Your task to perform on an android device: Look up the best rated video games on bestbuy.com Image 0: 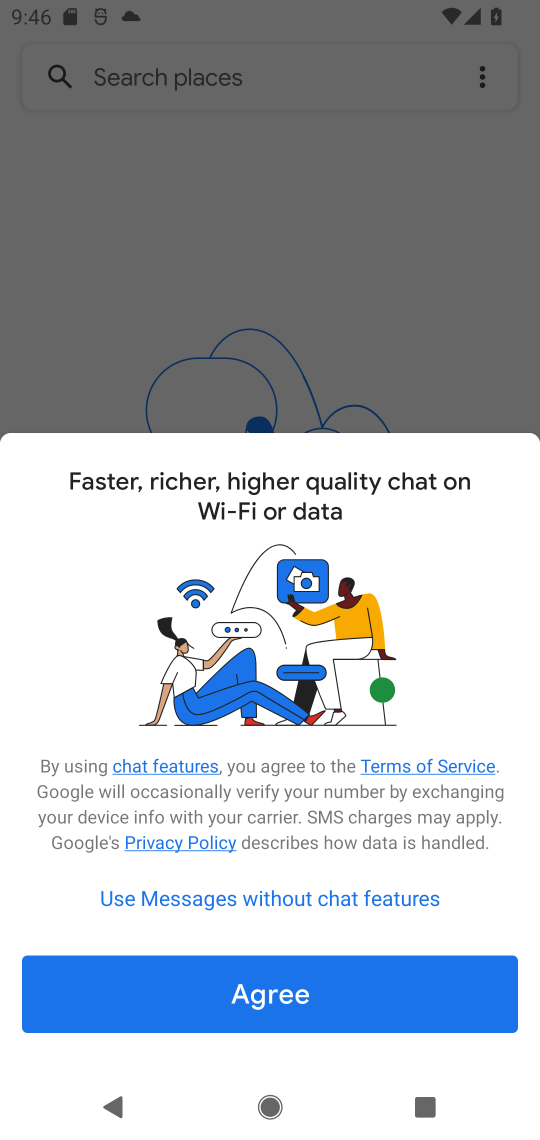
Step 0: press home button
Your task to perform on an android device: Look up the best rated video games on bestbuy.com Image 1: 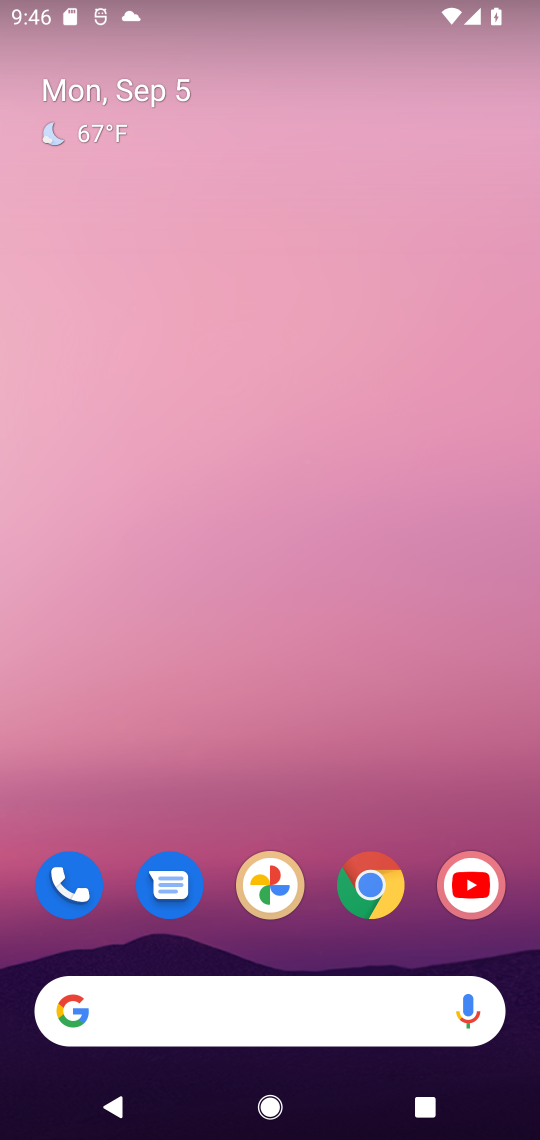
Step 1: drag from (307, 948) to (282, 61)
Your task to perform on an android device: Look up the best rated video games on bestbuy.com Image 2: 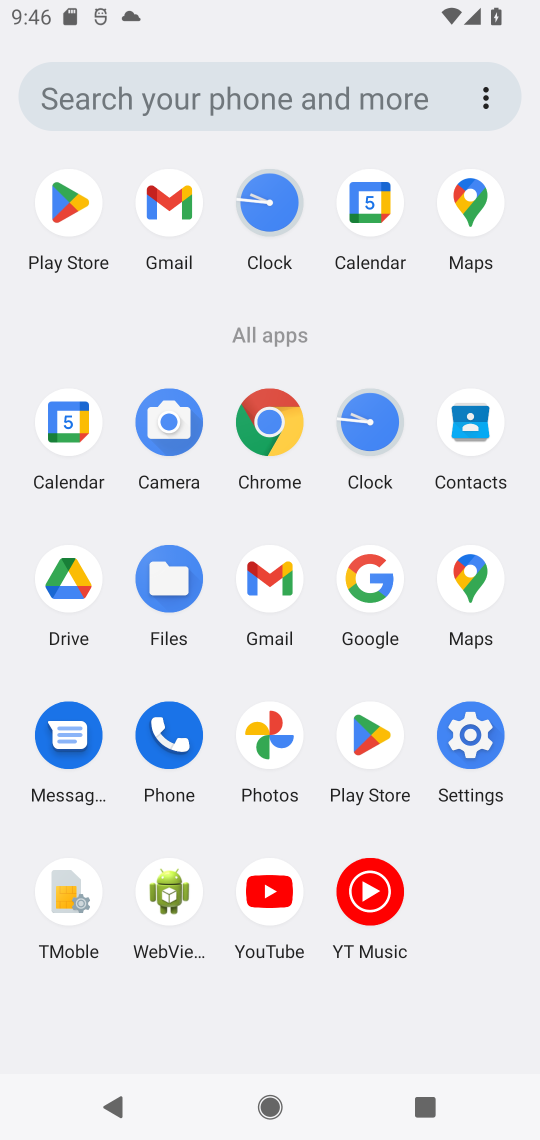
Step 2: click (375, 587)
Your task to perform on an android device: Look up the best rated video games on bestbuy.com Image 3: 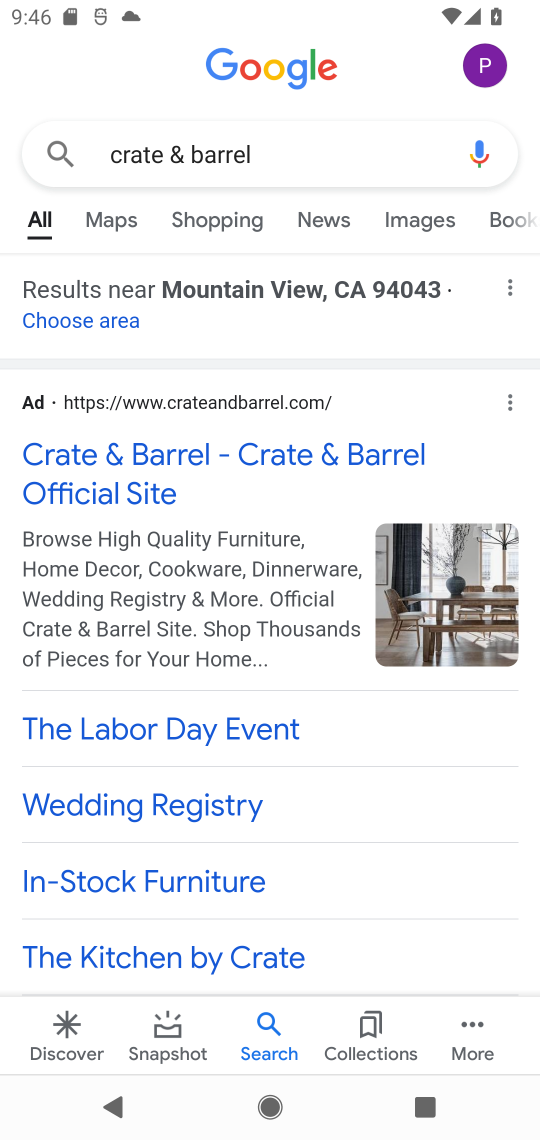
Step 3: click (271, 165)
Your task to perform on an android device: Look up the best rated video games on bestbuy.com Image 4: 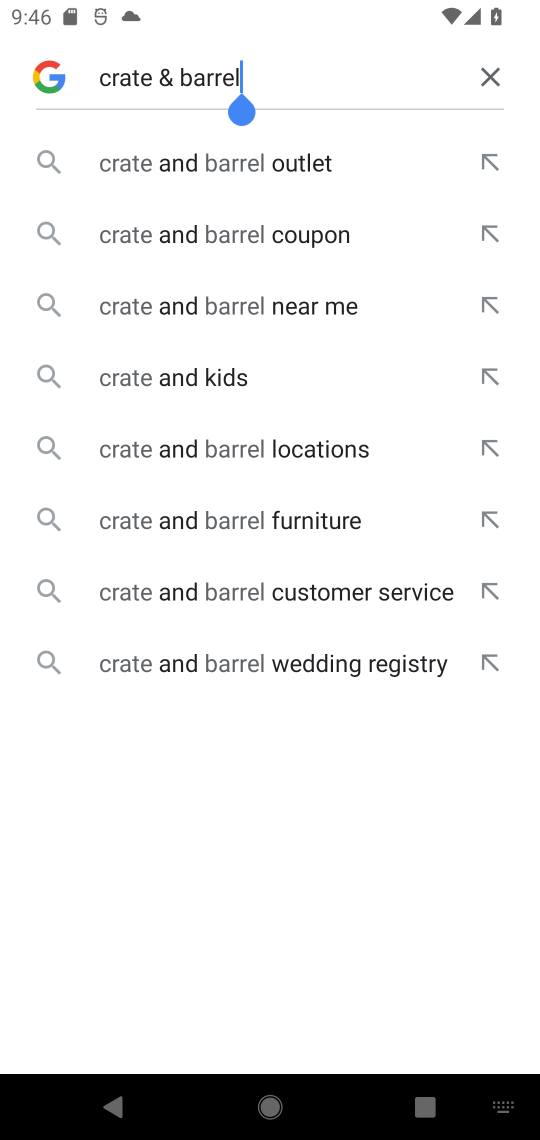
Step 4: click (486, 74)
Your task to perform on an android device: Look up the best rated video games on bestbuy.com Image 5: 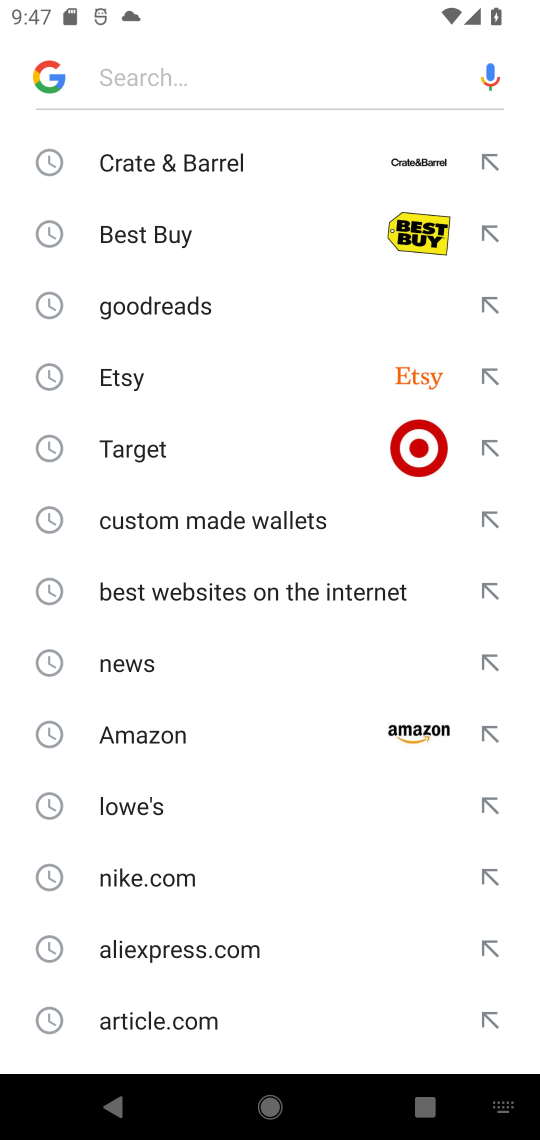
Step 5: type "bestbuy.com"
Your task to perform on an android device: Look up the best rated video games on bestbuy.com Image 6: 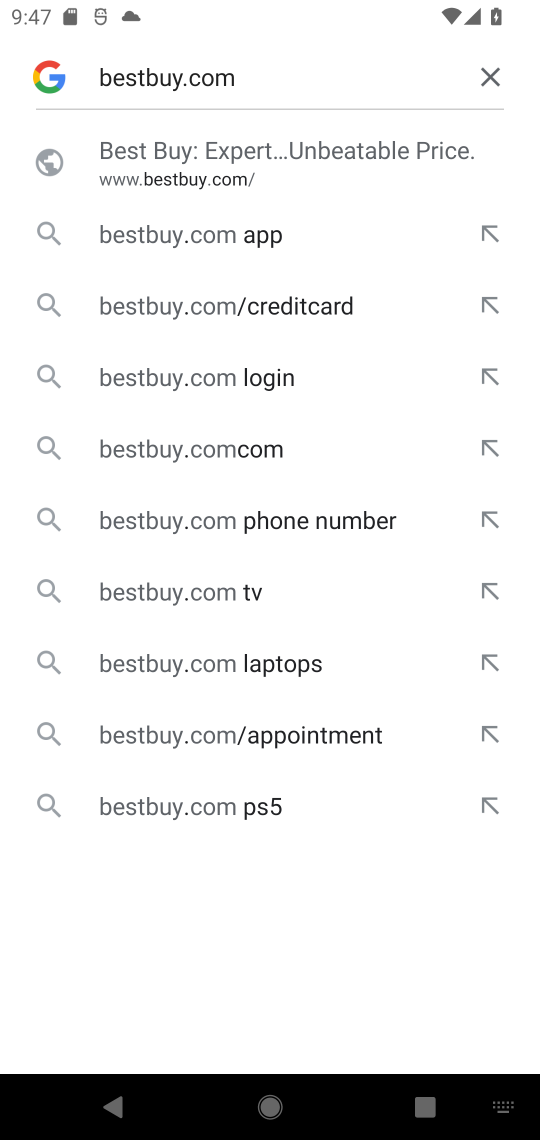
Step 6: click (186, 158)
Your task to perform on an android device: Look up the best rated video games on bestbuy.com Image 7: 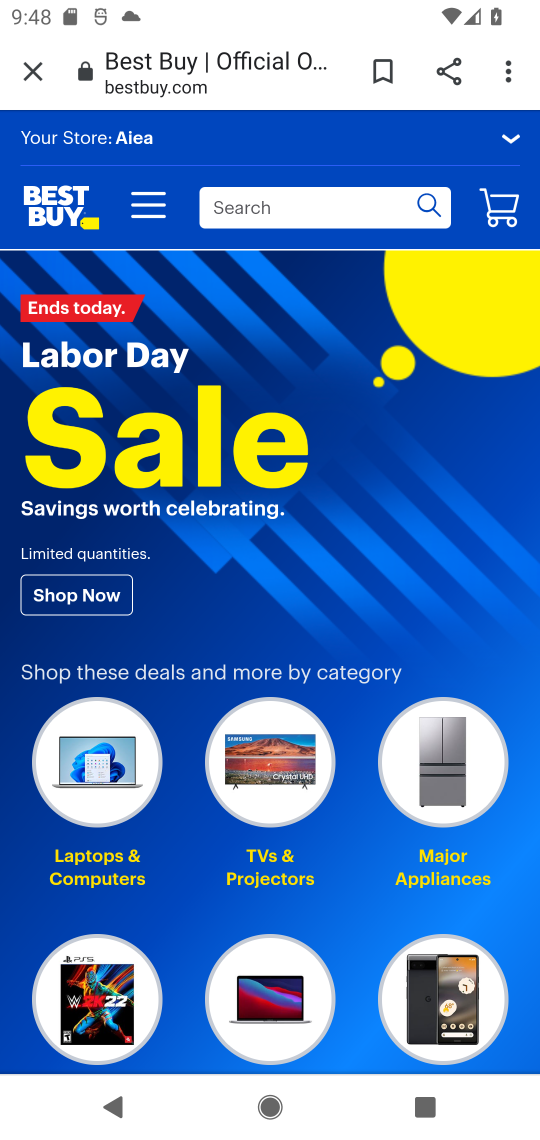
Step 7: click (285, 202)
Your task to perform on an android device: Look up the best rated video games on bestbuy.com Image 8: 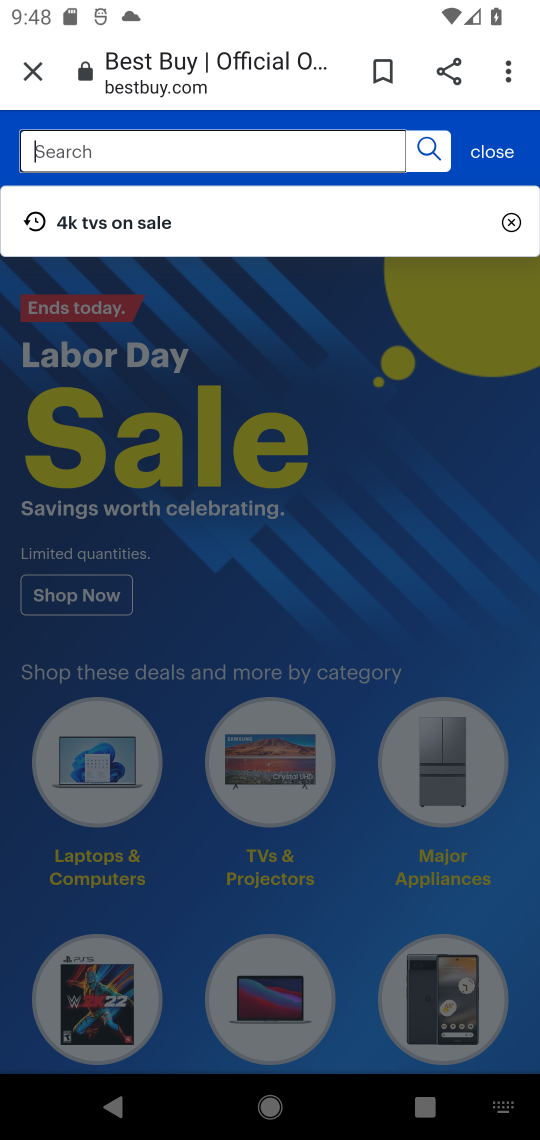
Step 8: click (141, 157)
Your task to perform on an android device: Look up the best rated video games on bestbuy.com Image 9: 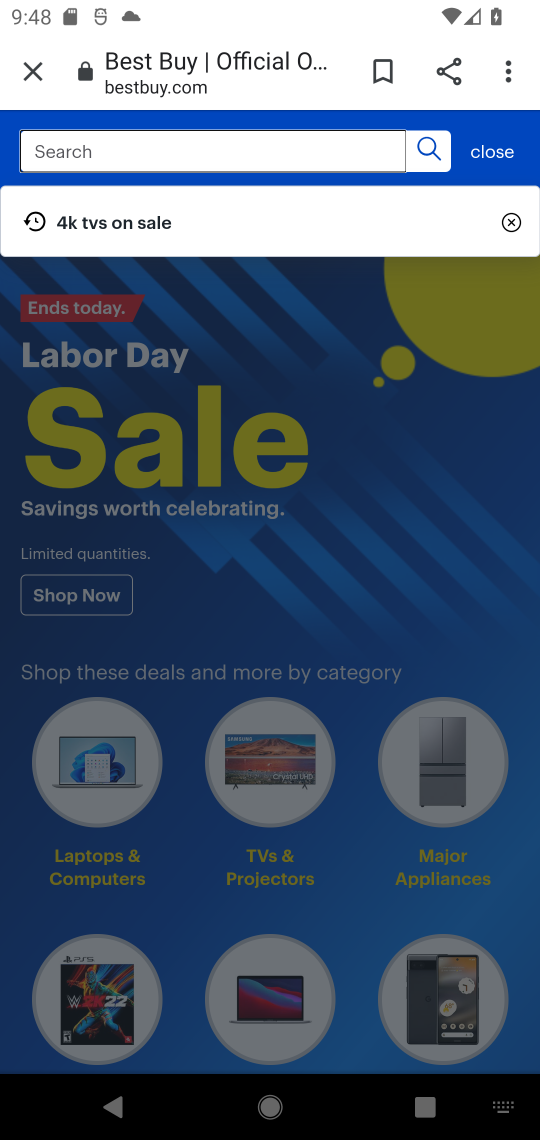
Step 9: type "video games"
Your task to perform on an android device: Look up the best rated video games on bestbuy.com Image 10: 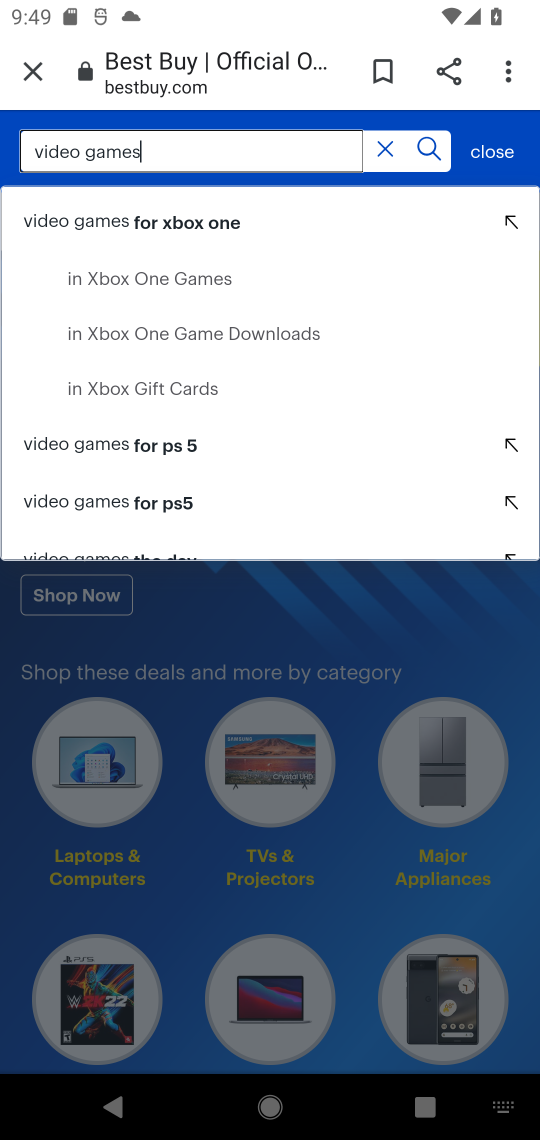
Step 10: click (131, 450)
Your task to perform on an android device: Look up the best rated video games on bestbuy.com Image 11: 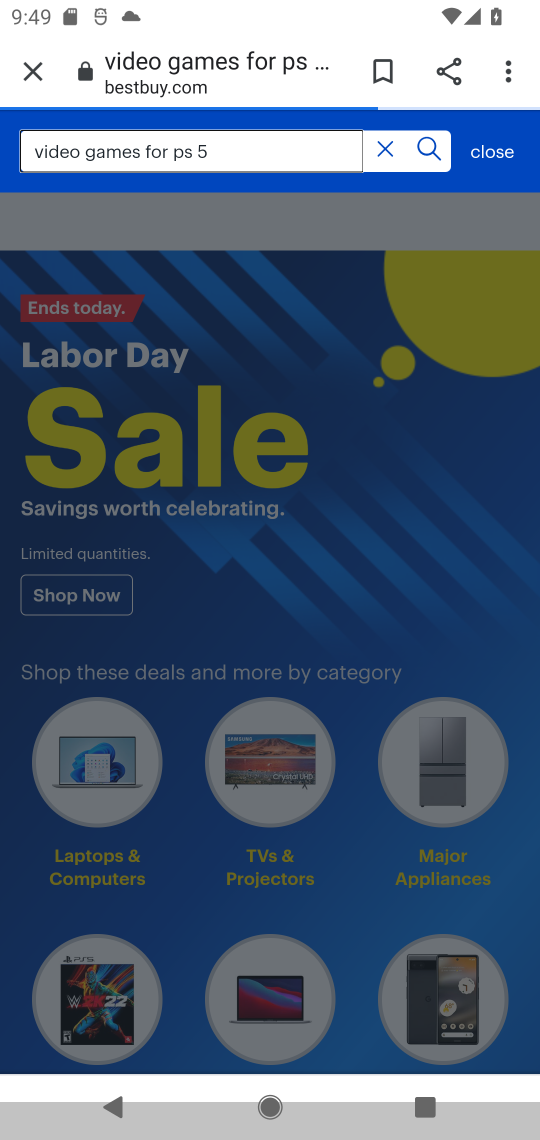
Step 11: click (430, 144)
Your task to perform on an android device: Look up the best rated video games on bestbuy.com Image 12: 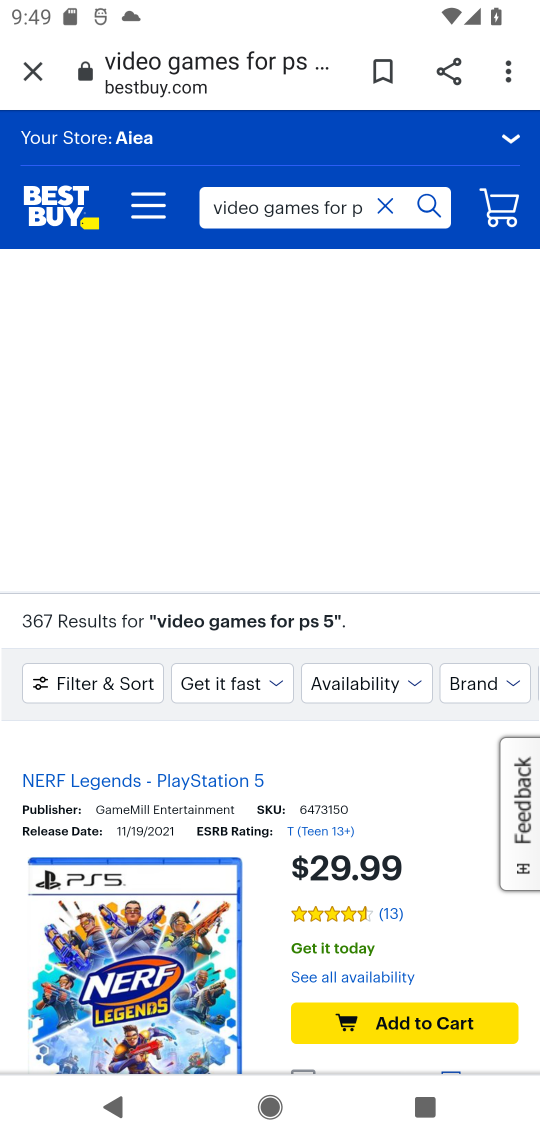
Step 12: task complete